Your task to perform on an android device: Go to Reddit.com Image 0: 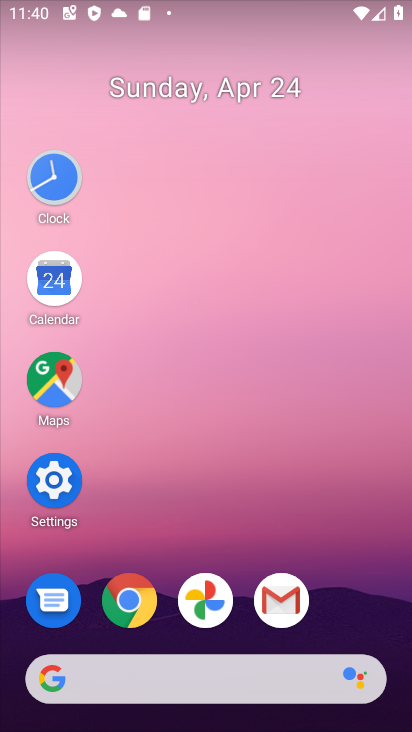
Step 0: click (126, 600)
Your task to perform on an android device: Go to Reddit.com Image 1: 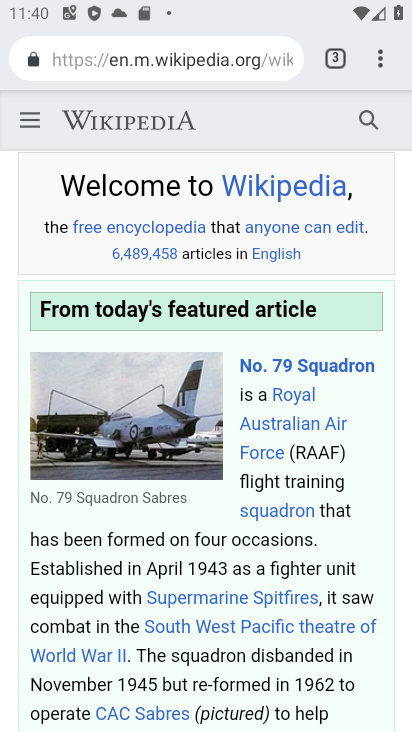
Step 1: click (374, 64)
Your task to perform on an android device: Go to Reddit.com Image 2: 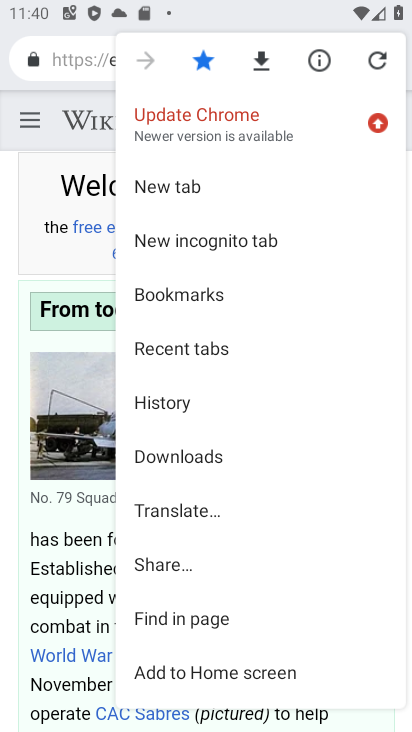
Step 2: click (185, 181)
Your task to perform on an android device: Go to Reddit.com Image 3: 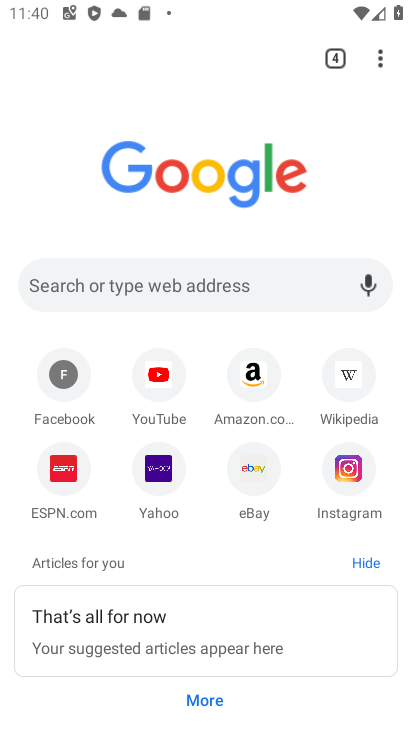
Step 3: click (179, 274)
Your task to perform on an android device: Go to Reddit.com Image 4: 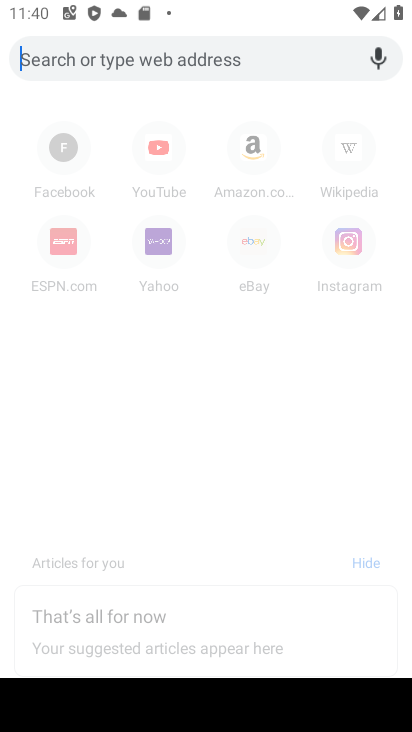
Step 4: type "Reddit.com"
Your task to perform on an android device: Go to Reddit.com Image 5: 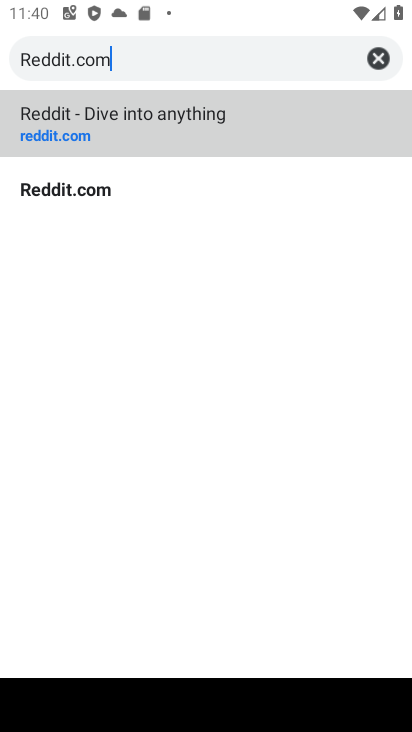
Step 5: click (74, 195)
Your task to perform on an android device: Go to Reddit.com Image 6: 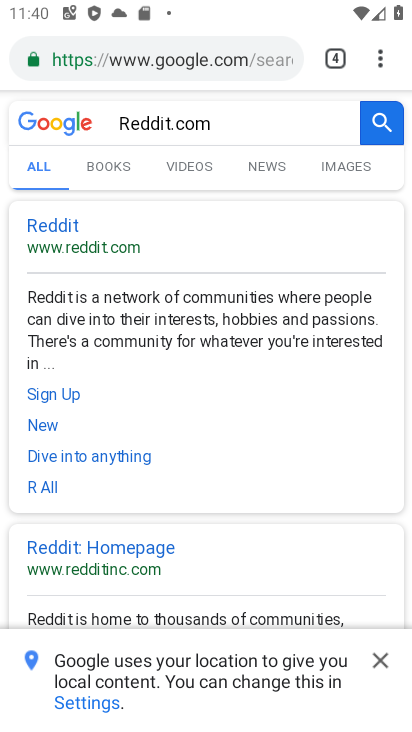
Step 6: task complete